Your task to perform on an android device: Search for flights from NYC to Barcelona Image 0: 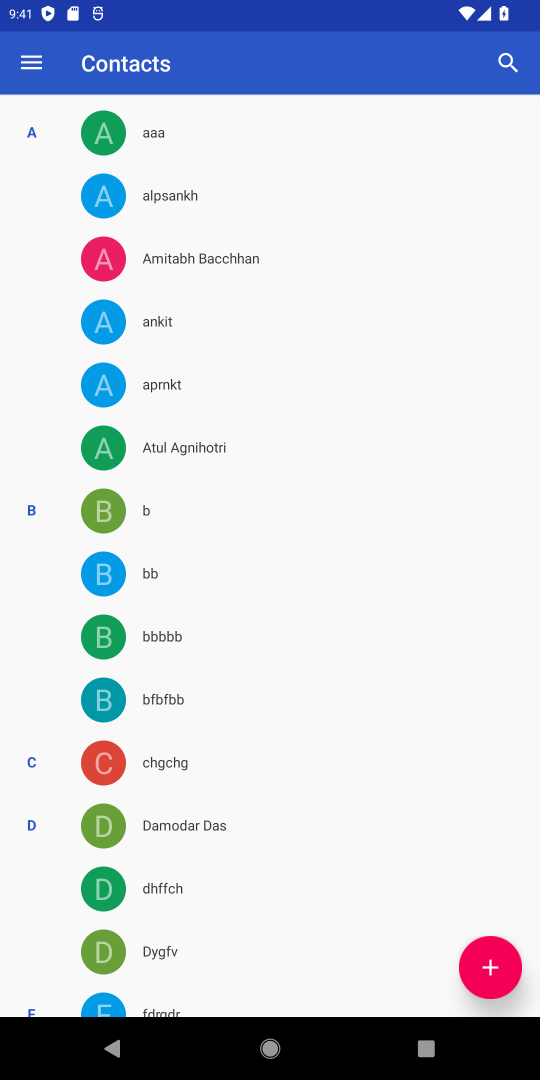
Step 0: press home button
Your task to perform on an android device: Search for flights from NYC to Barcelona Image 1: 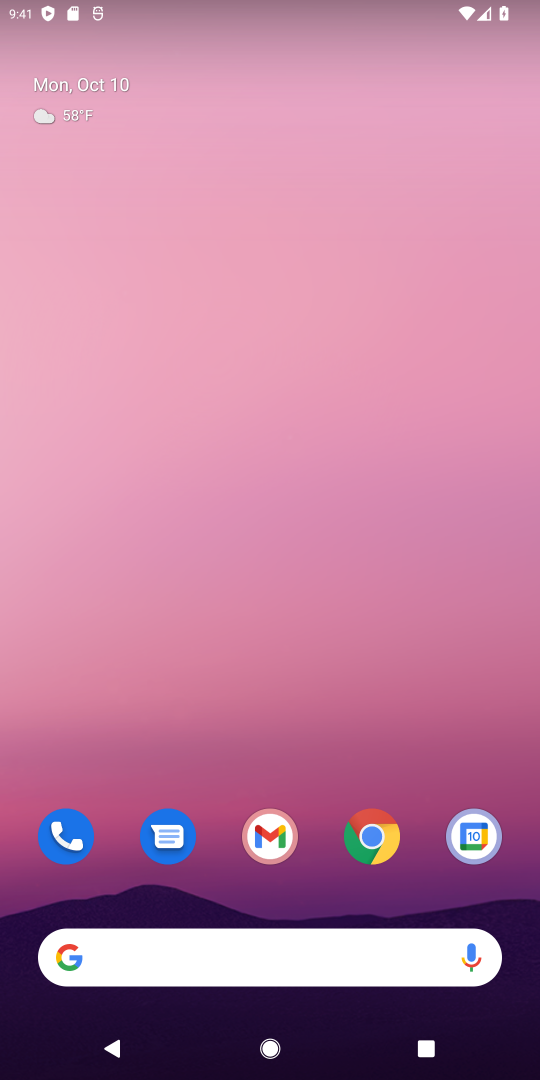
Step 1: drag from (307, 933) to (417, 11)
Your task to perform on an android device: Search for flights from NYC to Barcelona Image 2: 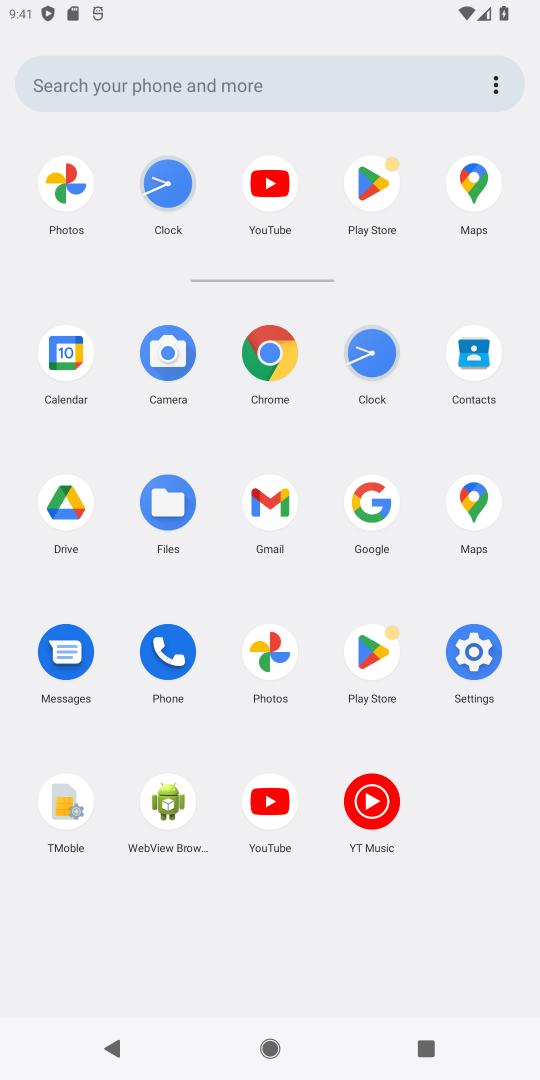
Step 2: click (367, 85)
Your task to perform on an android device: Search for flights from NYC to Barcelona Image 3: 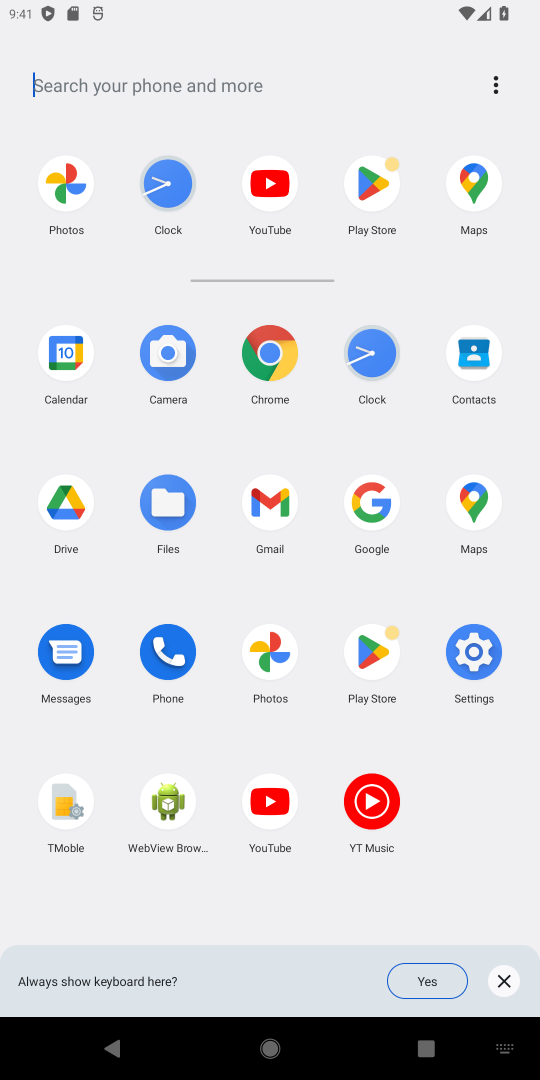
Step 3: click (378, 500)
Your task to perform on an android device: Search for flights from NYC to Barcelona Image 4: 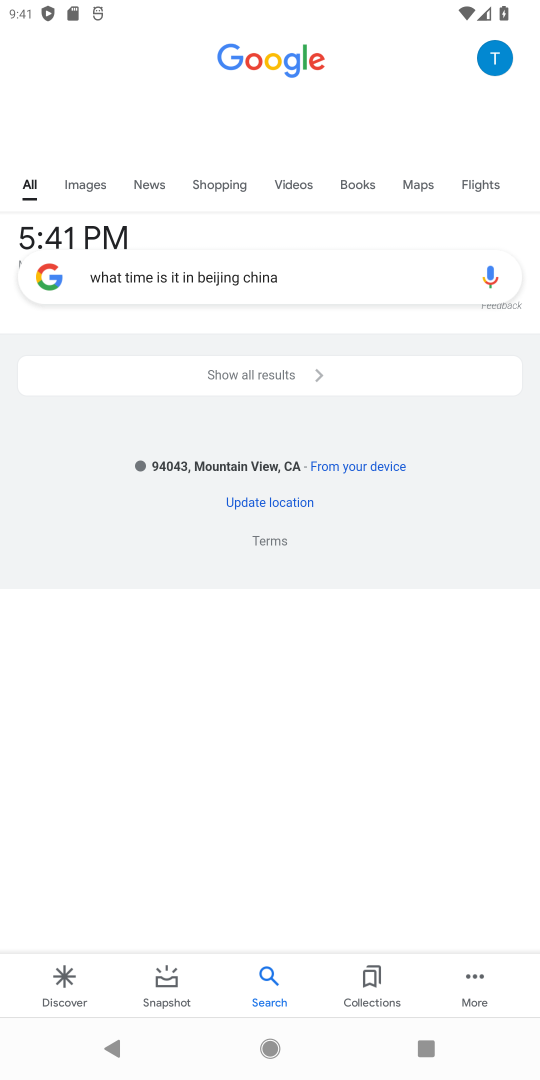
Step 4: click (188, 281)
Your task to perform on an android device: Search for flights from NYC to Barcelona Image 5: 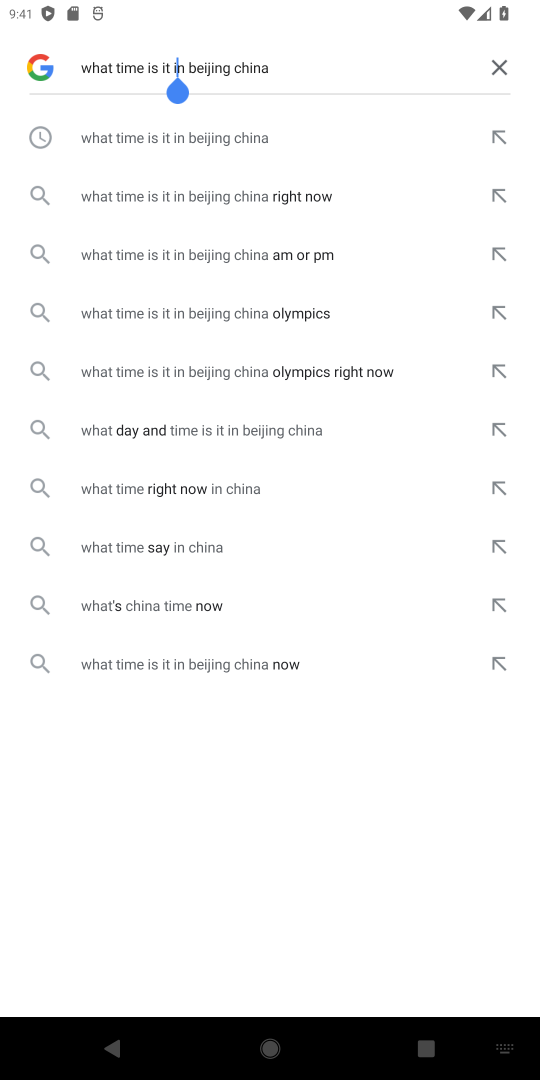
Step 5: click (493, 71)
Your task to perform on an android device: Search for flights from NYC to Barcelona Image 6: 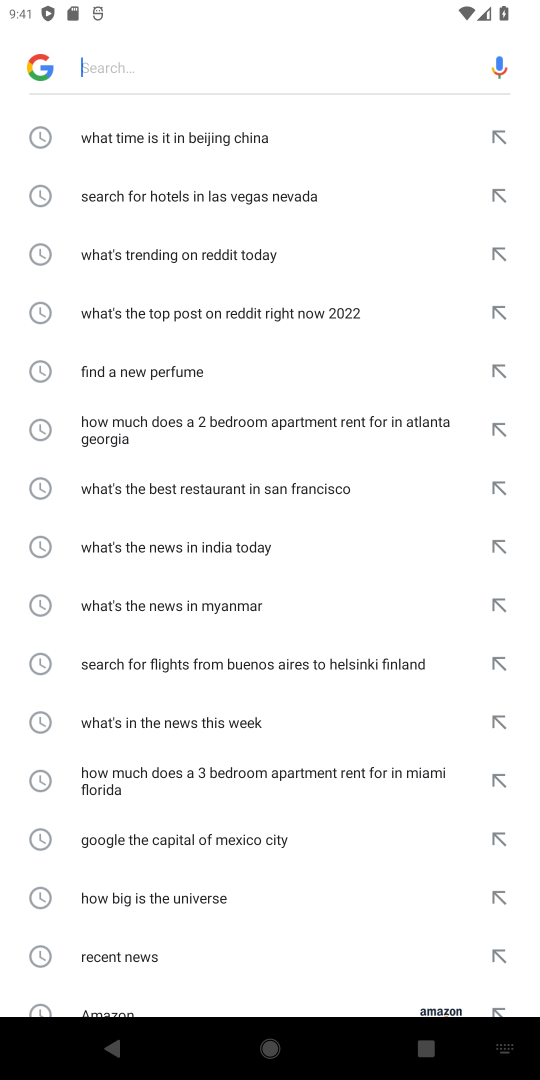
Step 6: type "Search for flights from NYC to Barcelona"
Your task to perform on an android device: Search for flights from NYC to Barcelona Image 7: 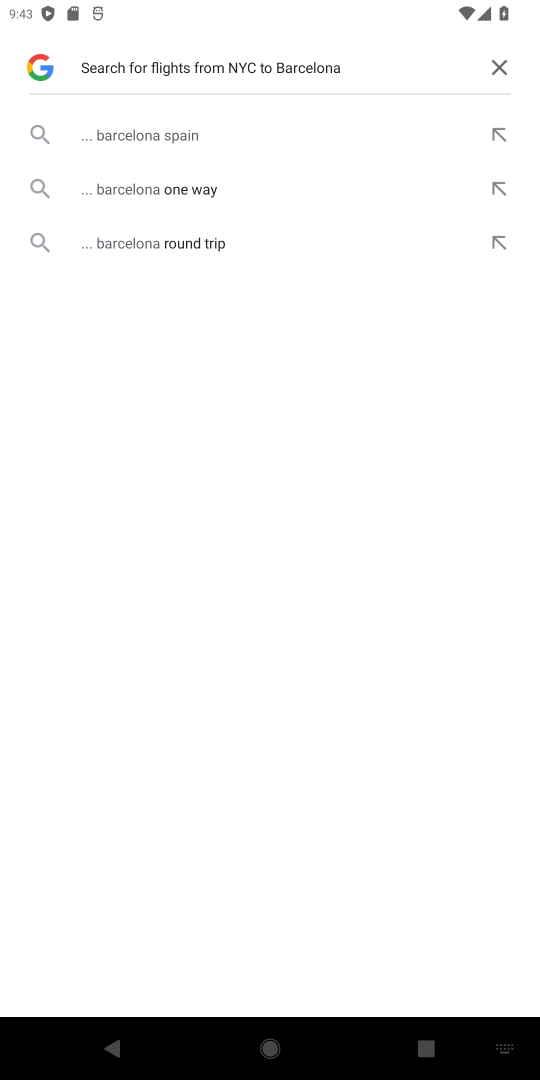
Step 7: click (173, 138)
Your task to perform on an android device: Search for flights from NYC to Barcelona Image 8: 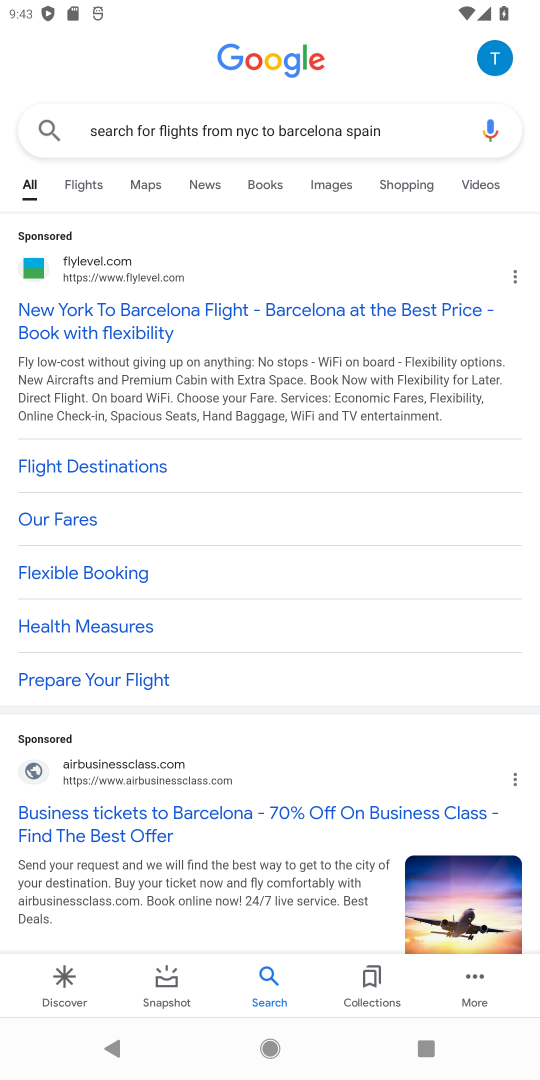
Step 8: click (137, 311)
Your task to perform on an android device: Search for flights from NYC to Barcelona Image 9: 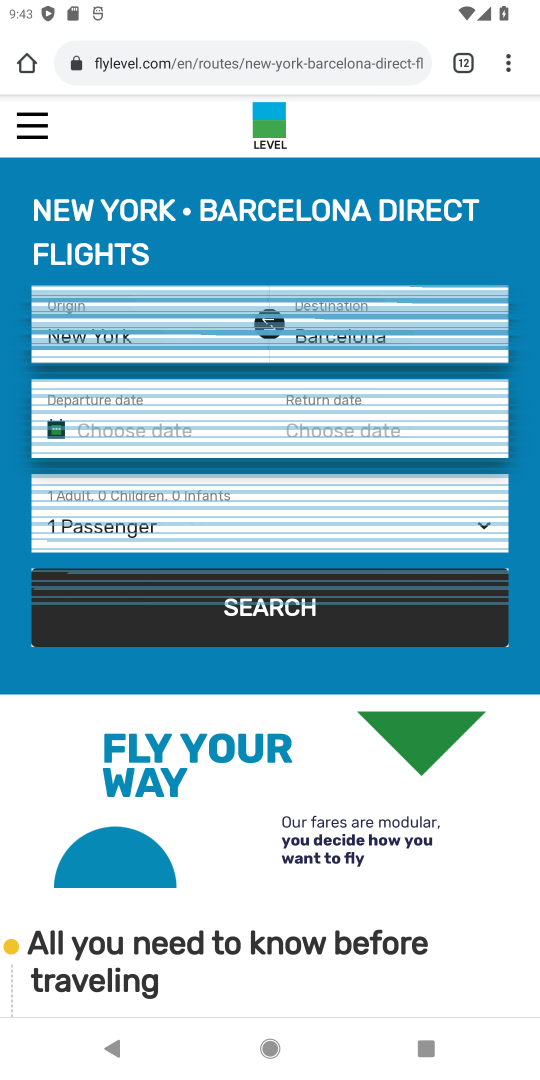
Step 9: task complete